Your task to perform on an android device: turn off wifi Image 0: 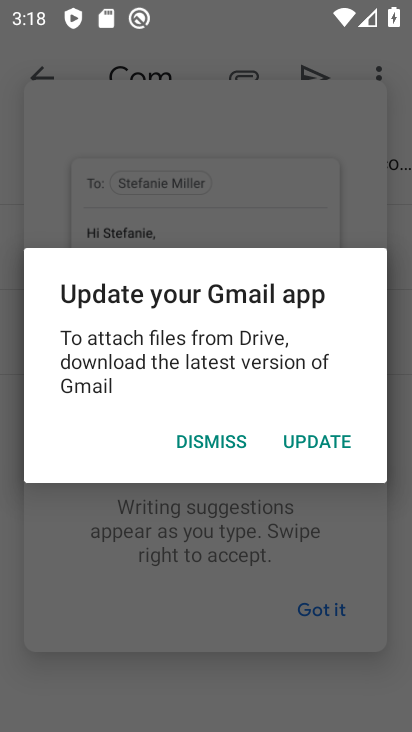
Step 0: press home button
Your task to perform on an android device: turn off wifi Image 1: 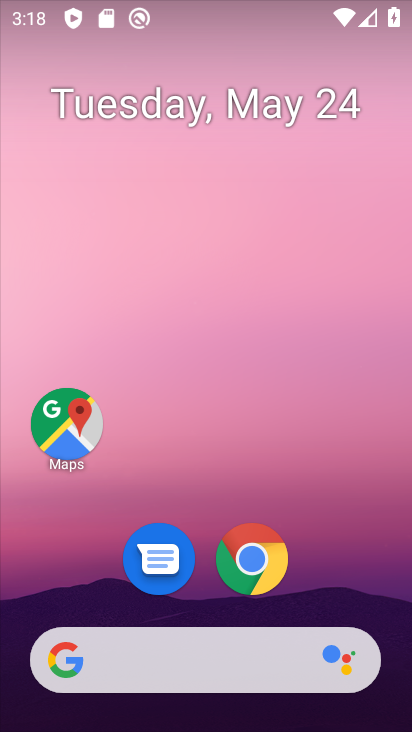
Step 1: drag from (326, 563) to (269, 107)
Your task to perform on an android device: turn off wifi Image 2: 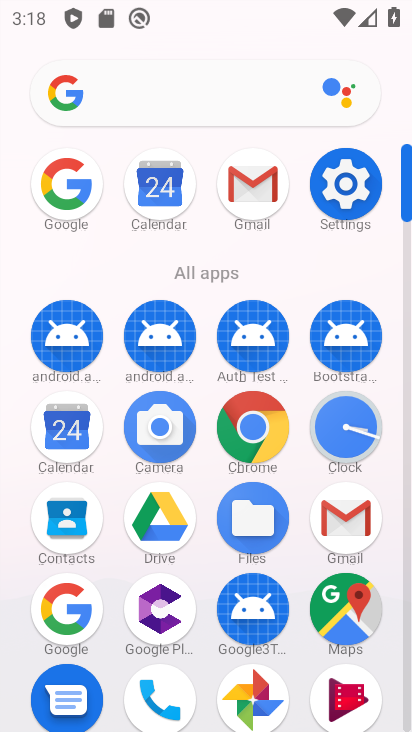
Step 2: click (345, 181)
Your task to perform on an android device: turn off wifi Image 3: 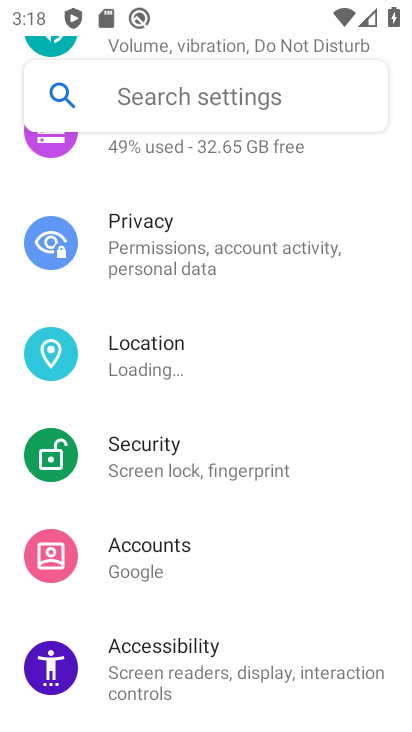
Step 3: drag from (212, 194) to (131, 338)
Your task to perform on an android device: turn off wifi Image 4: 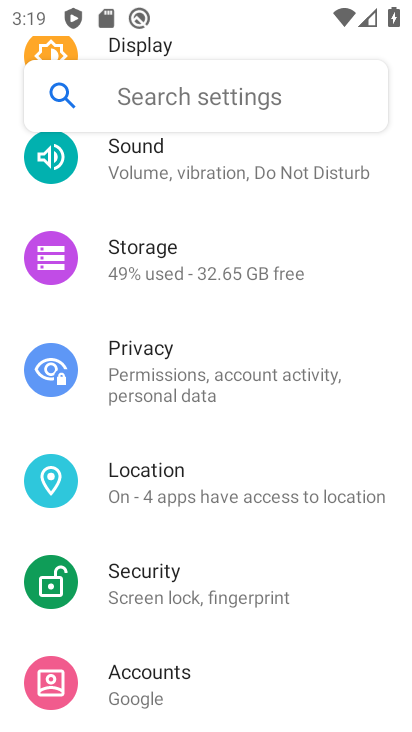
Step 4: drag from (187, 234) to (186, 365)
Your task to perform on an android device: turn off wifi Image 5: 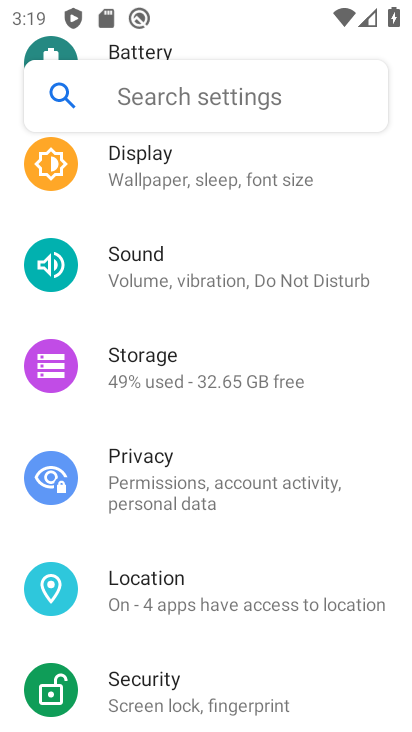
Step 5: drag from (211, 240) to (220, 369)
Your task to perform on an android device: turn off wifi Image 6: 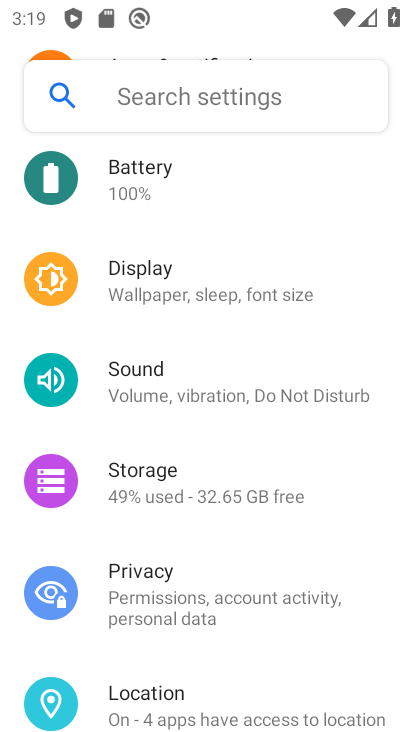
Step 6: drag from (203, 235) to (230, 354)
Your task to perform on an android device: turn off wifi Image 7: 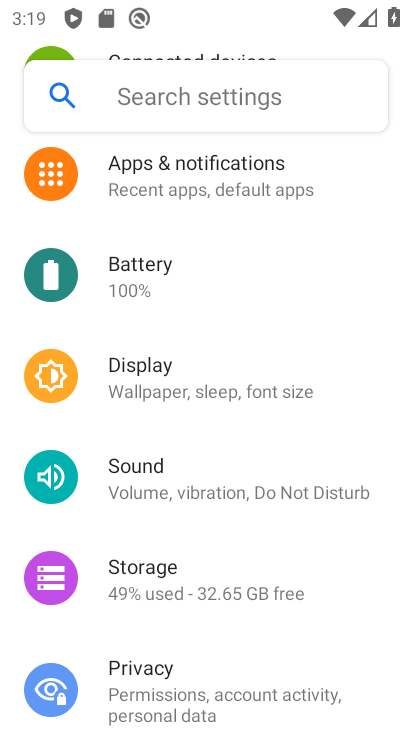
Step 7: drag from (203, 235) to (210, 352)
Your task to perform on an android device: turn off wifi Image 8: 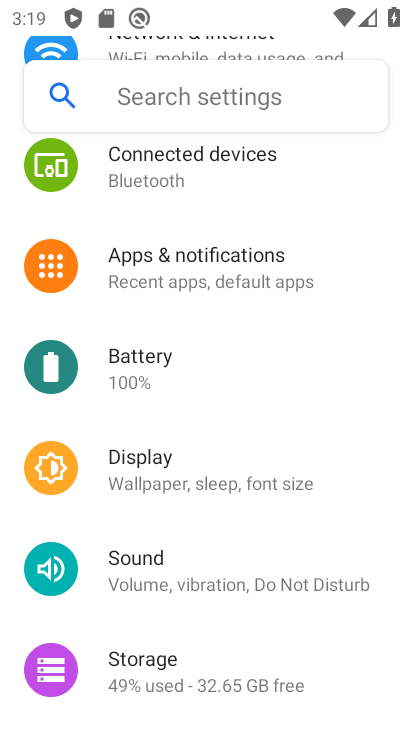
Step 8: drag from (226, 218) to (222, 343)
Your task to perform on an android device: turn off wifi Image 9: 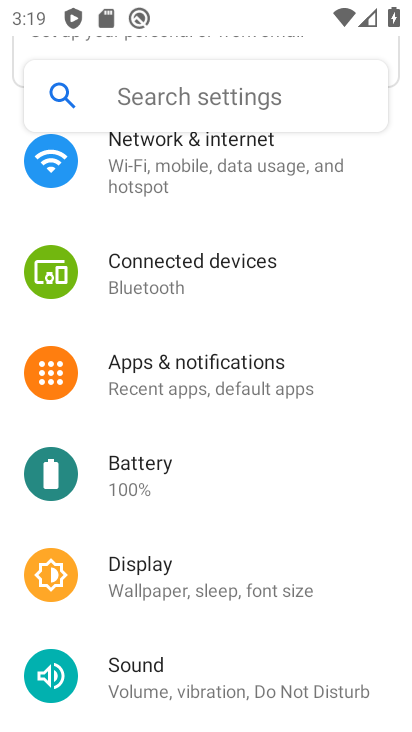
Step 9: drag from (227, 204) to (232, 322)
Your task to perform on an android device: turn off wifi Image 10: 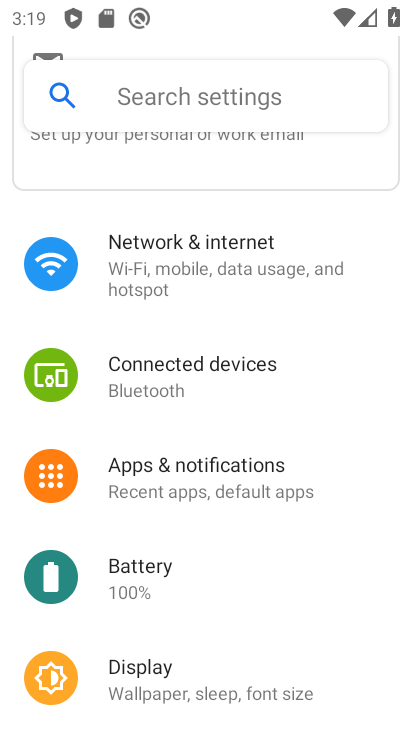
Step 10: click (209, 245)
Your task to perform on an android device: turn off wifi Image 11: 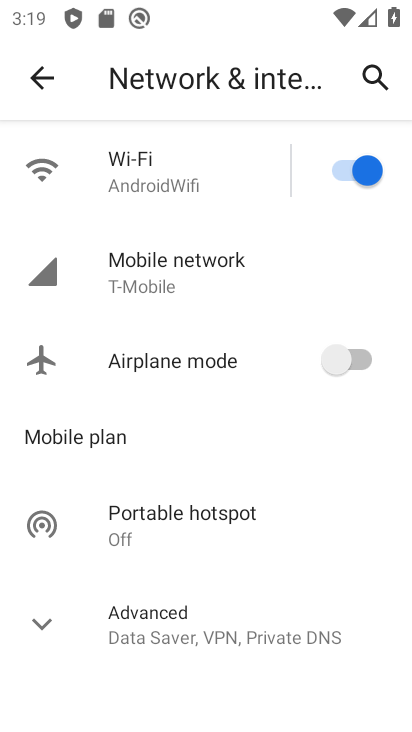
Step 11: click (345, 169)
Your task to perform on an android device: turn off wifi Image 12: 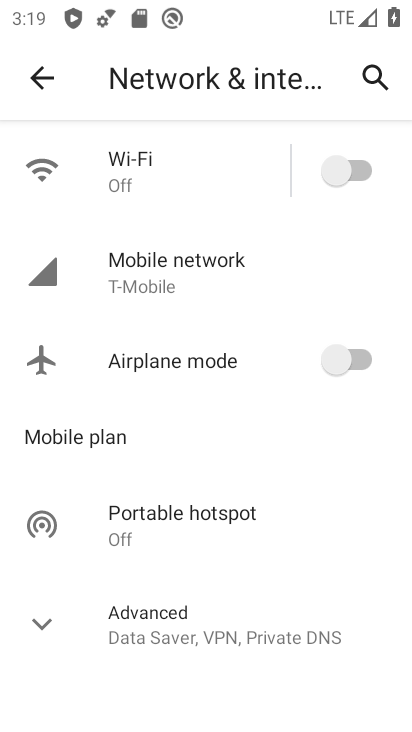
Step 12: task complete